Your task to perform on an android device: Open wifi settings Image 0: 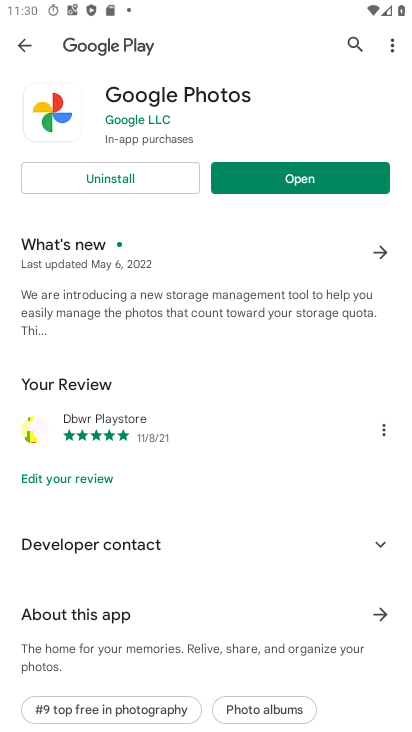
Step 0: press home button
Your task to perform on an android device: Open wifi settings Image 1: 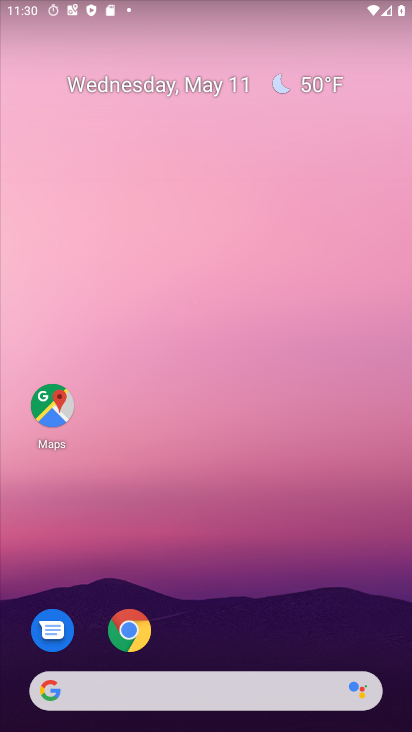
Step 1: drag from (200, 636) to (240, 235)
Your task to perform on an android device: Open wifi settings Image 2: 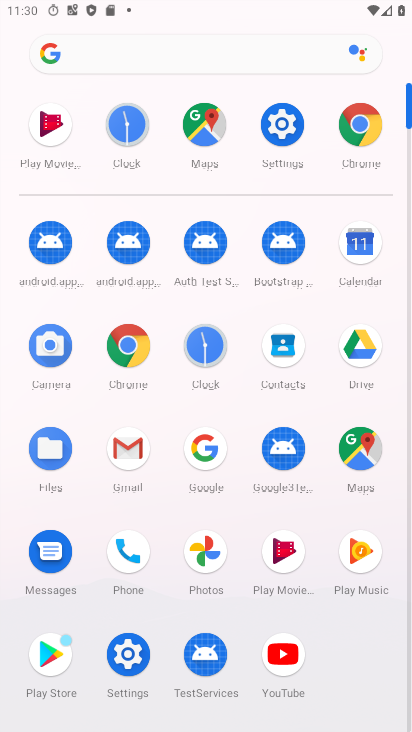
Step 2: click (280, 139)
Your task to perform on an android device: Open wifi settings Image 3: 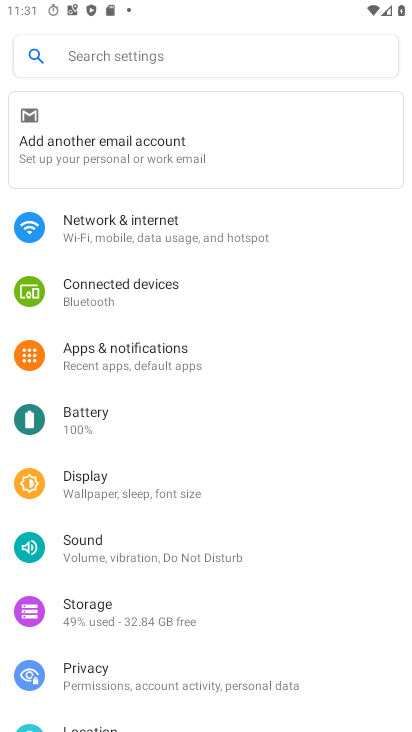
Step 3: click (153, 233)
Your task to perform on an android device: Open wifi settings Image 4: 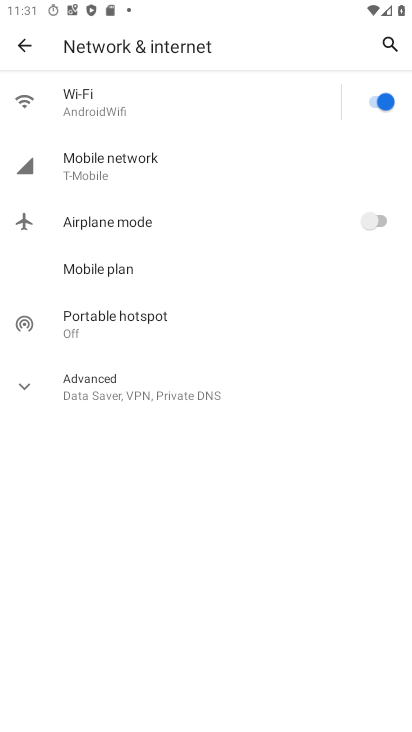
Step 4: click (157, 97)
Your task to perform on an android device: Open wifi settings Image 5: 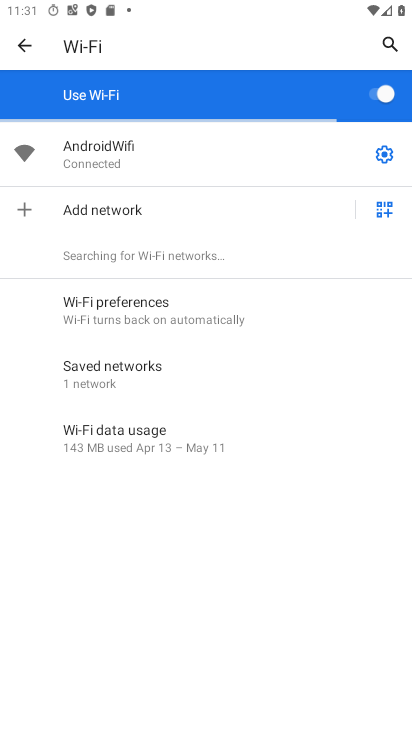
Step 5: task complete